Your task to perform on an android device: add a contact in the contacts app Image 0: 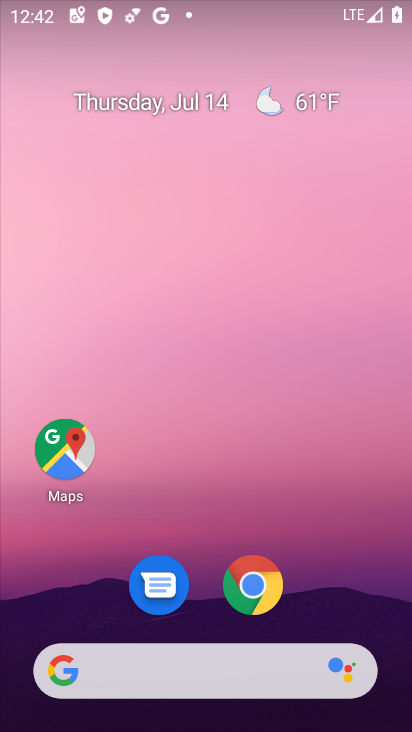
Step 0: drag from (321, 548) to (321, 31)
Your task to perform on an android device: add a contact in the contacts app Image 1: 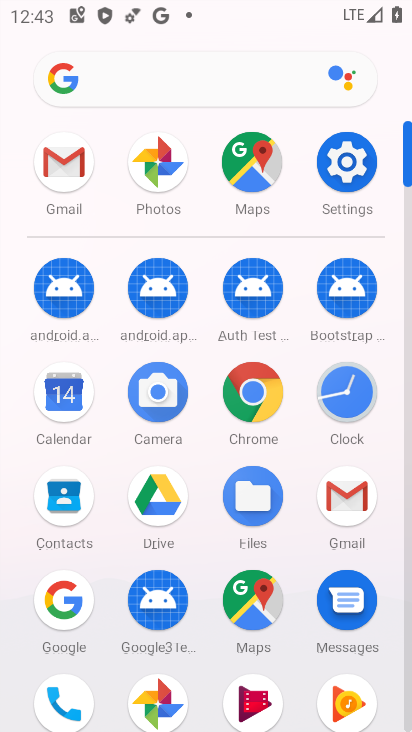
Step 1: click (57, 495)
Your task to perform on an android device: add a contact in the contacts app Image 2: 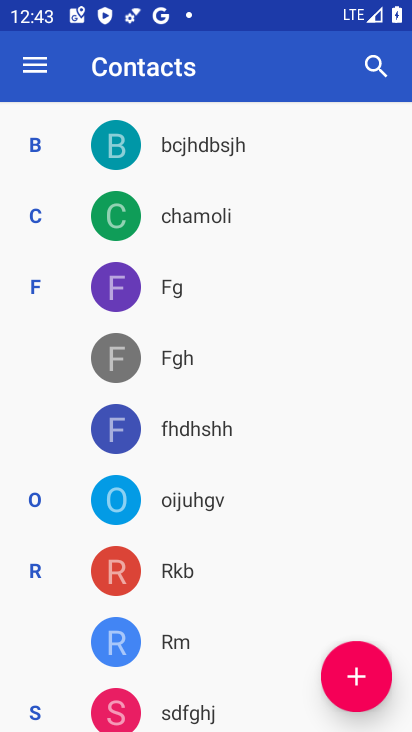
Step 2: click (350, 674)
Your task to perform on an android device: add a contact in the contacts app Image 3: 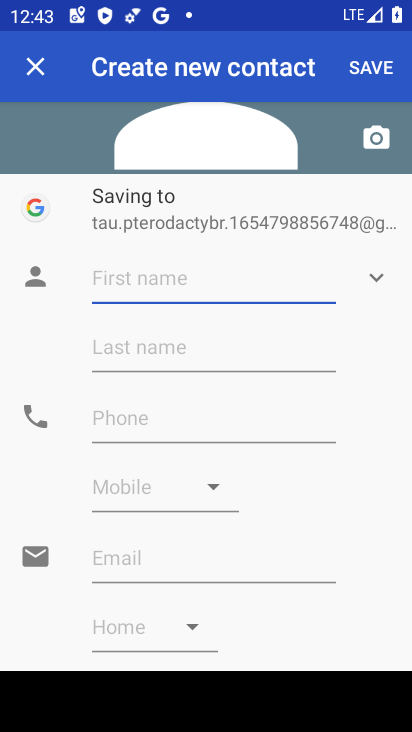
Step 3: type ""
Your task to perform on an android device: add a contact in the contacts app Image 4: 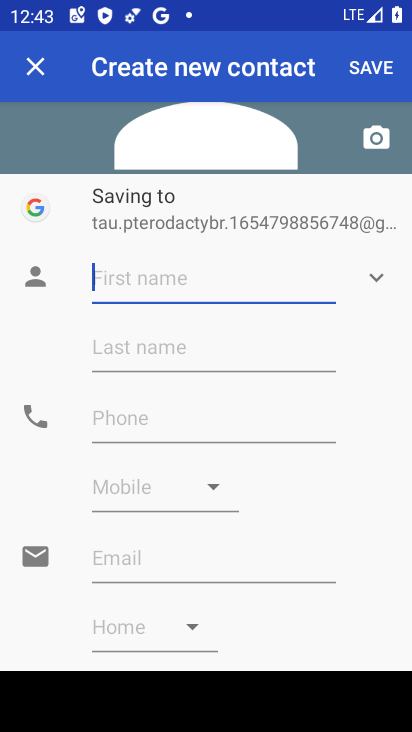
Step 4: type "Shushrut Rishi"
Your task to perform on an android device: add a contact in the contacts app Image 5: 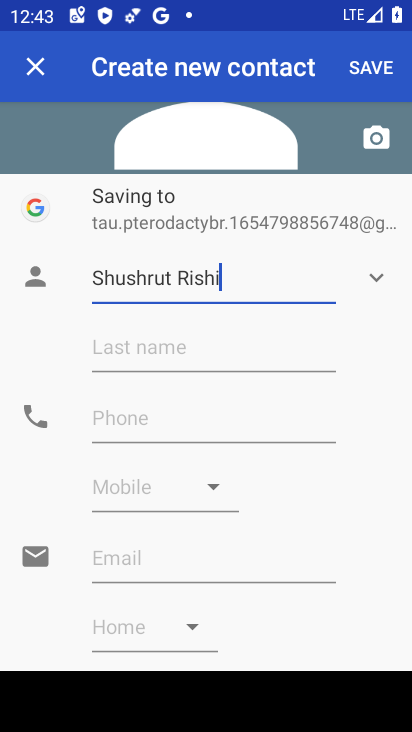
Step 5: click (173, 427)
Your task to perform on an android device: add a contact in the contacts app Image 6: 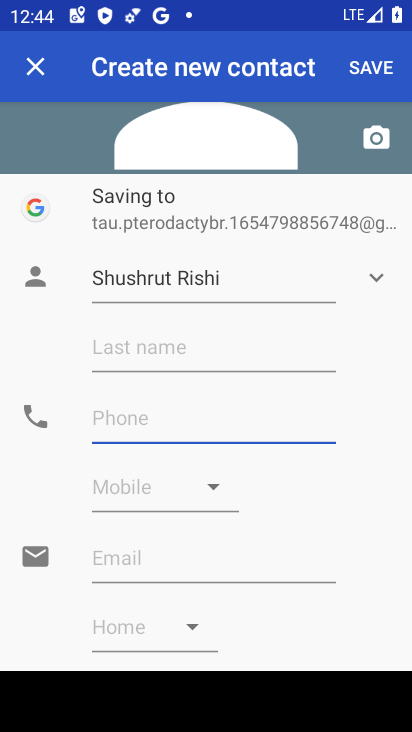
Step 6: type "+91999000000001"
Your task to perform on an android device: add a contact in the contacts app Image 7: 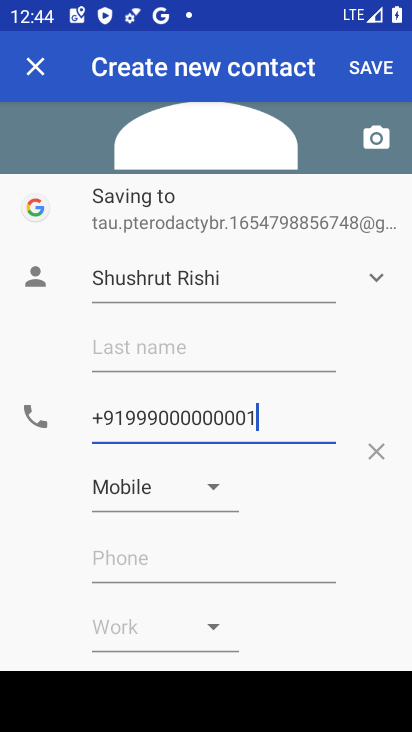
Step 7: click (385, 65)
Your task to perform on an android device: add a contact in the contacts app Image 8: 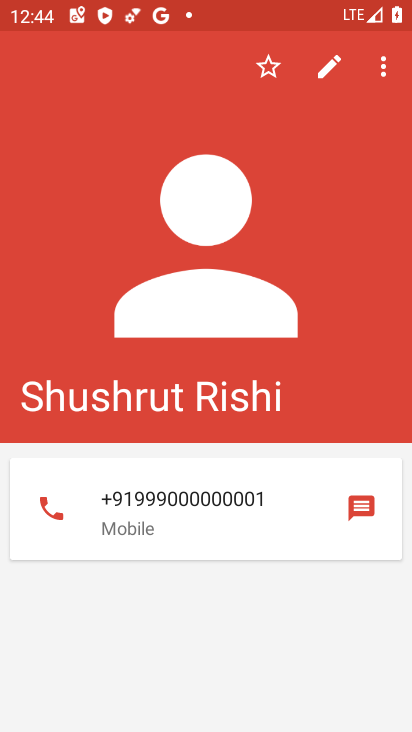
Step 8: task complete